Your task to perform on an android device: turn on notifications settings in the gmail app Image 0: 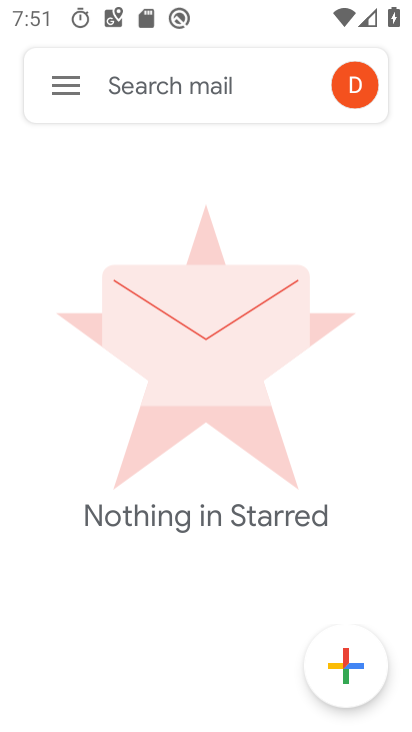
Step 0: click (61, 94)
Your task to perform on an android device: turn on notifications settings in the gmail app Image 1: 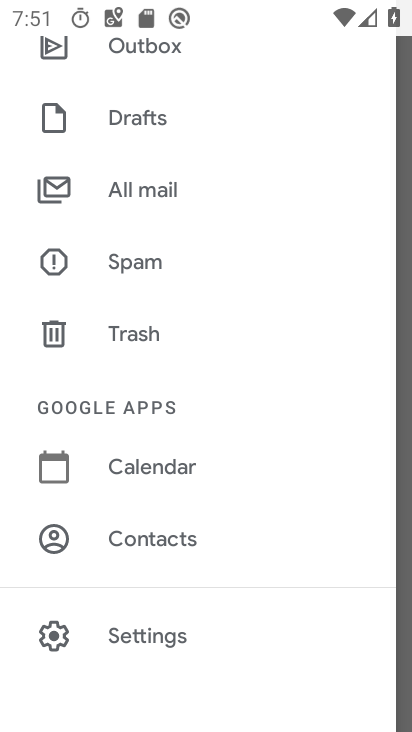
Step 1: click (140, 627)
Your task to perform on an android device: turn on notifications settings in the gmail app Image 2: 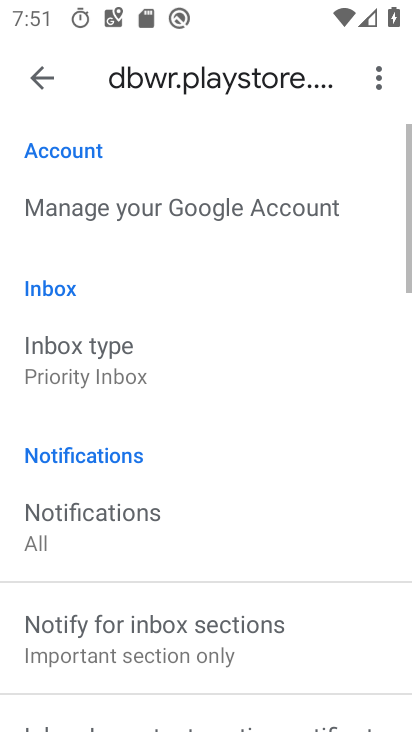
Step 2: drag from (134, 662) to (198, 215)
Your task to perform on an android device: turn on notifications settings in the gmail app Image 3: 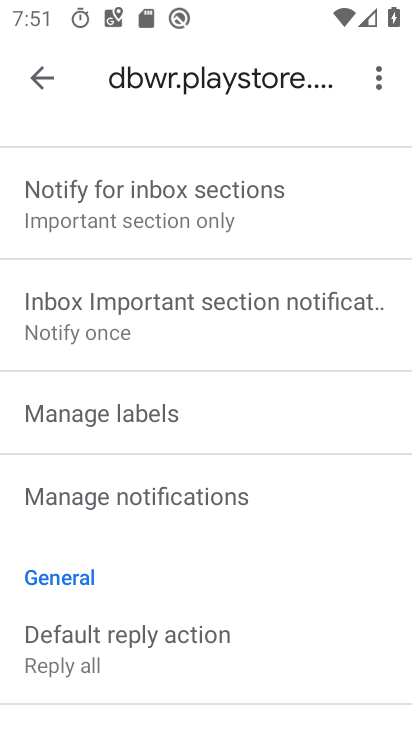
Step 3: click (111, 488)
Your task to perform on an android device: turn on notifications settings in the gmail app Image 4: 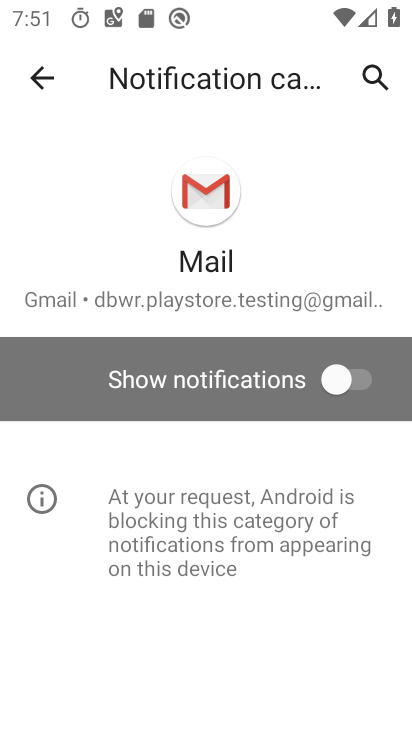
Step 4: click (346, 375)
Your task to perform on an android device: turn on notifications settings in the gmail app Image 5: 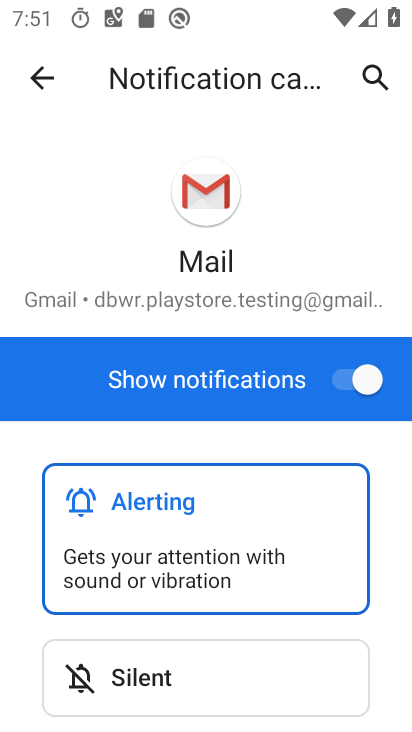
Step 5: task complete